Your task to perform on an android device: snooze an email in the gmail app Image 0: 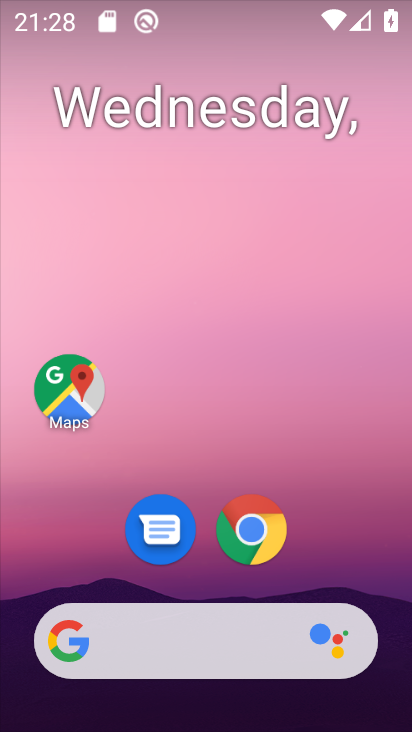
Step 0: drag from (83, 577) to (163, 191)
Your task to perform on an android device: snooze an email in the gmail app Image 1: 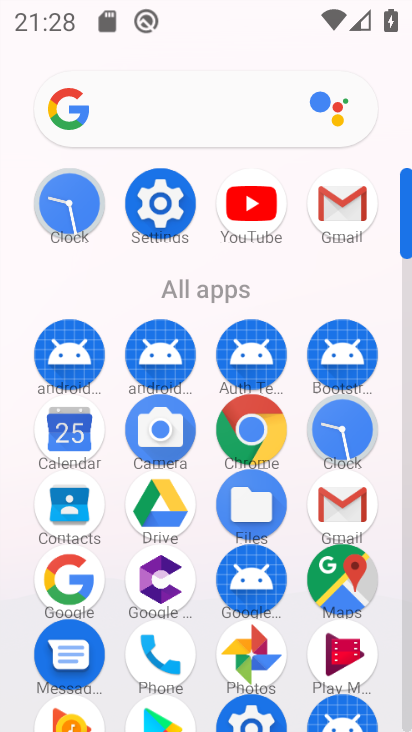
Step 1: click (337, 502)
Your task to perform on an android device: snooze an email in the gmail app Image 2: 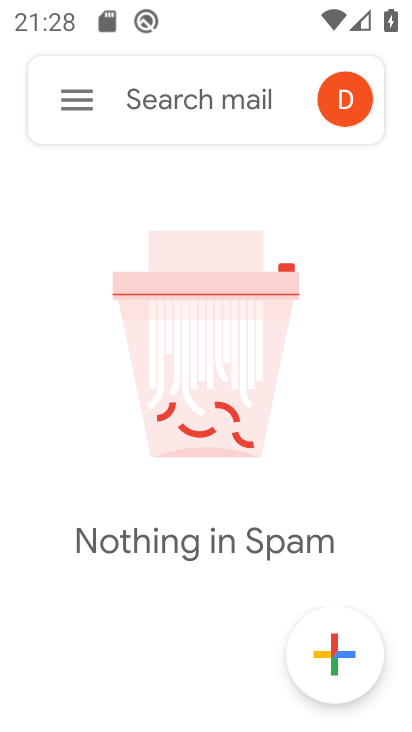
Step 2: click (93, 111)
Your task to perform on an android device: snooze an email in the gmail app Image 3: 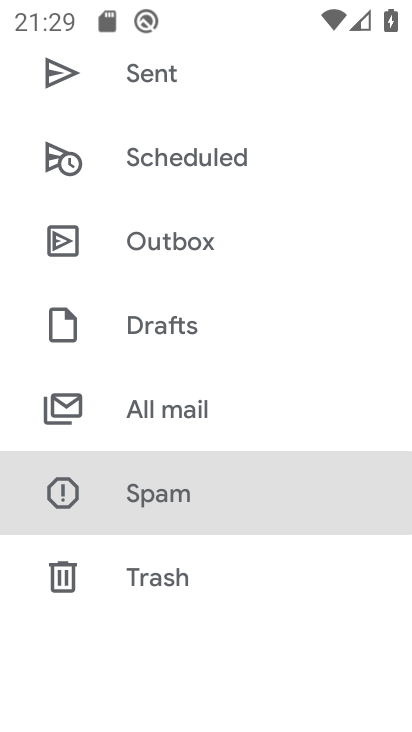
Step 3: click (212, 421)
Your task to perform on an android device: snooze an email in the gmail app Image 4: 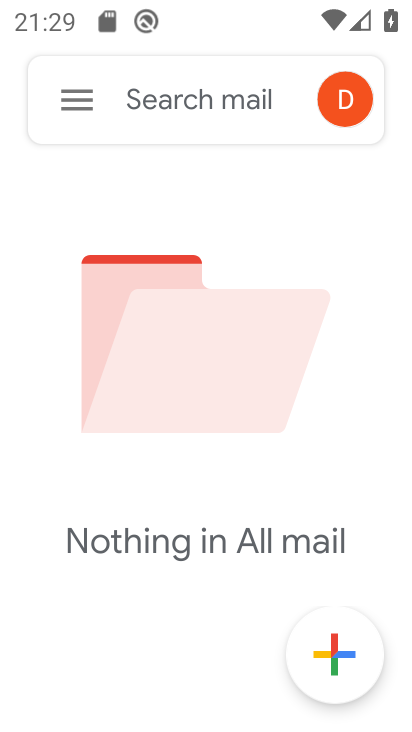
Step 4: task complete